Your task to perform on an android device: install app "Speedtest by Ookla" Image 0: 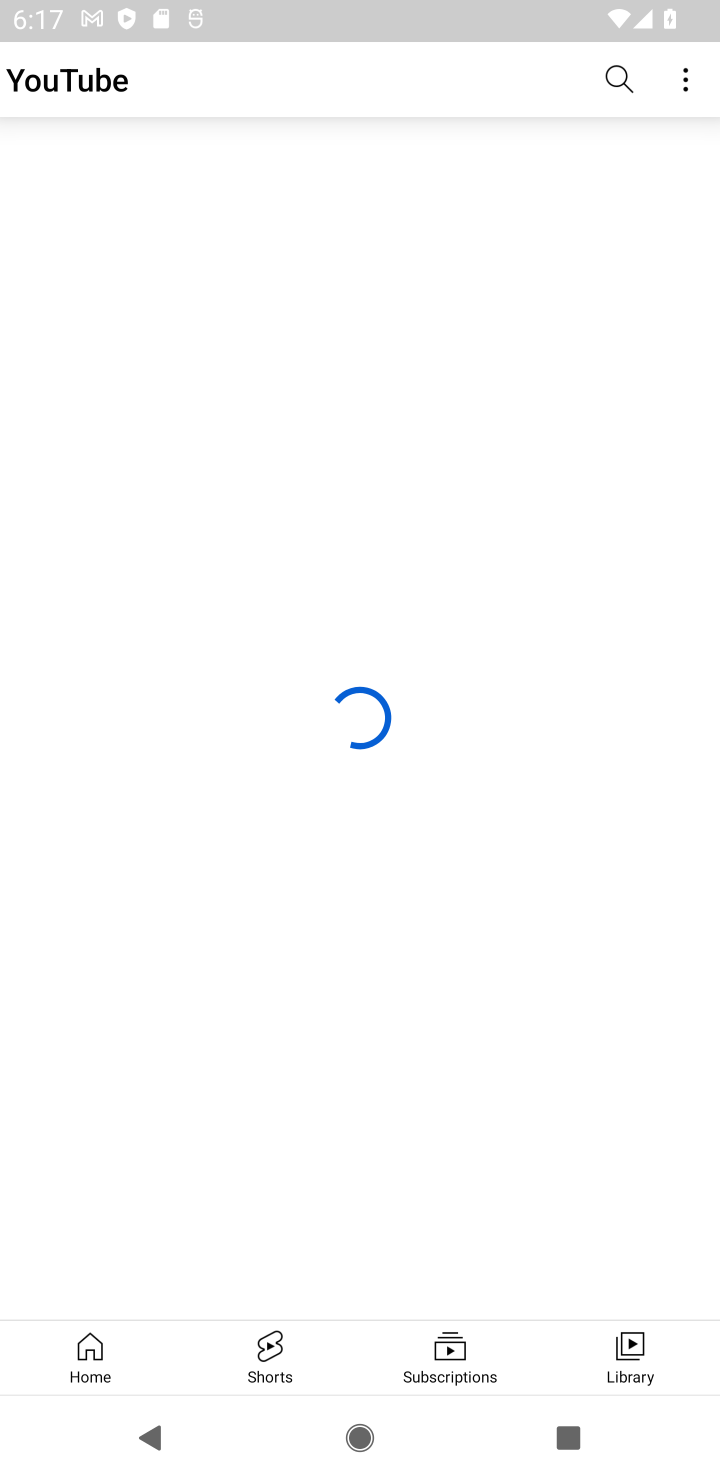
Step 0: press home button
Your task to perform on an android device: install app "Speedtest by Ookla" Image 1: 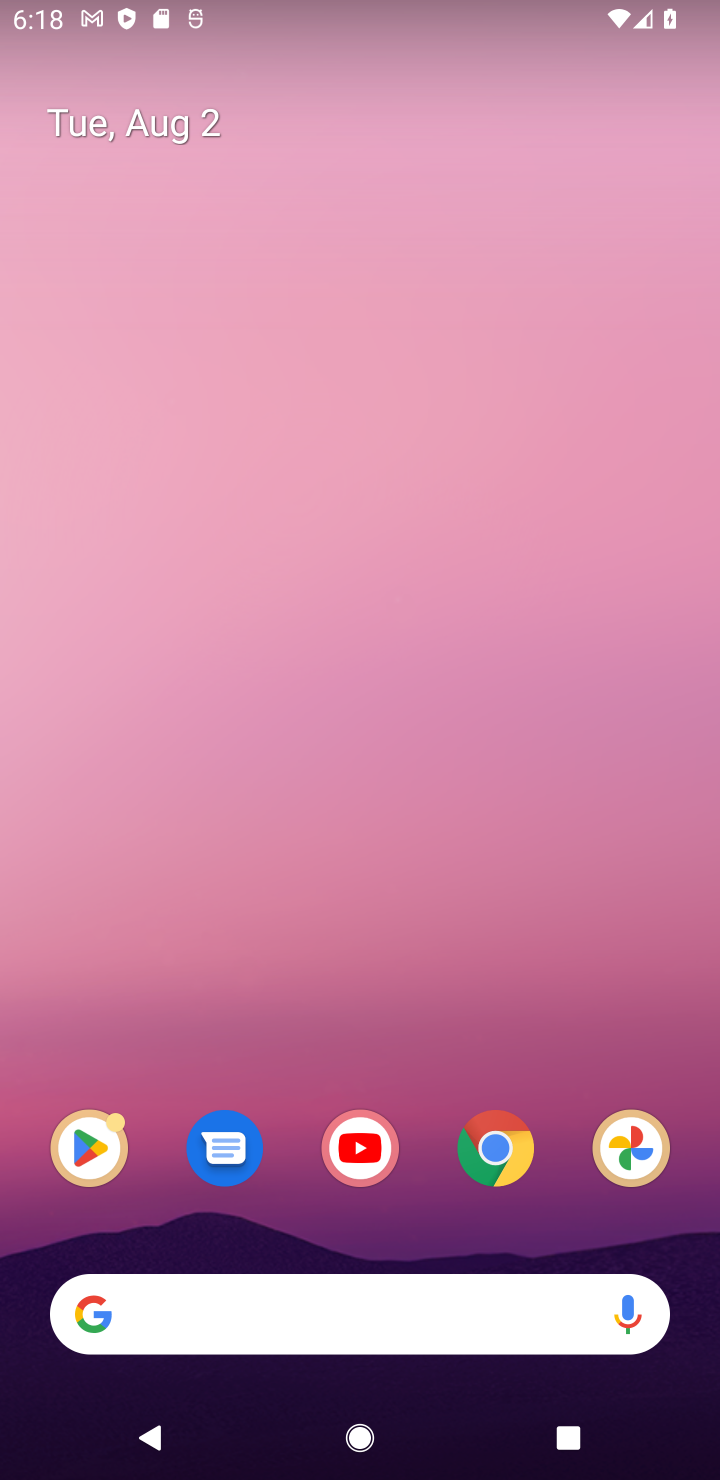
Step 1: drag from (437, 700) to (307, 48)
Your task to perform on an android device: install app "Speedtest by Ookla" Image 2: 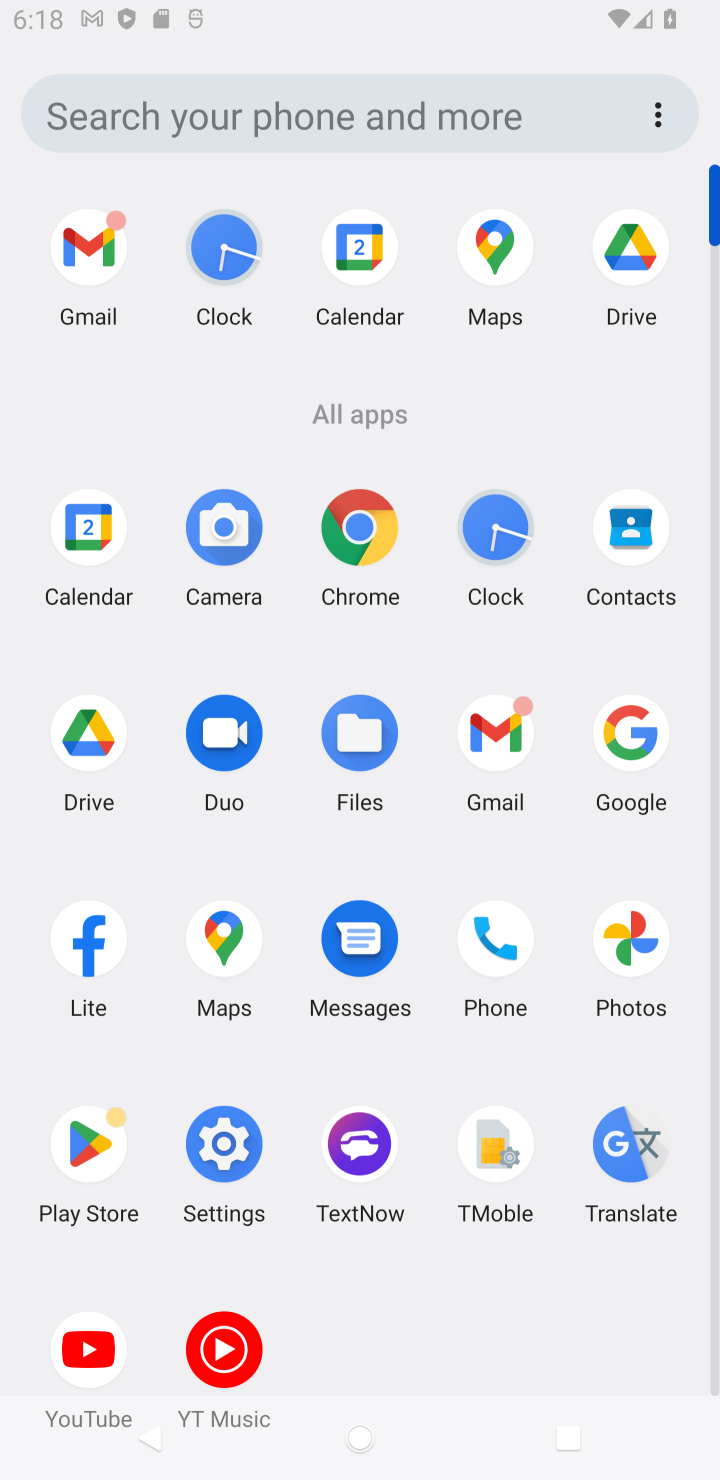
Step 2: click (80, 1141)
Your task to perform on an android device: install app "Speedtest by Ookla" Image 3: 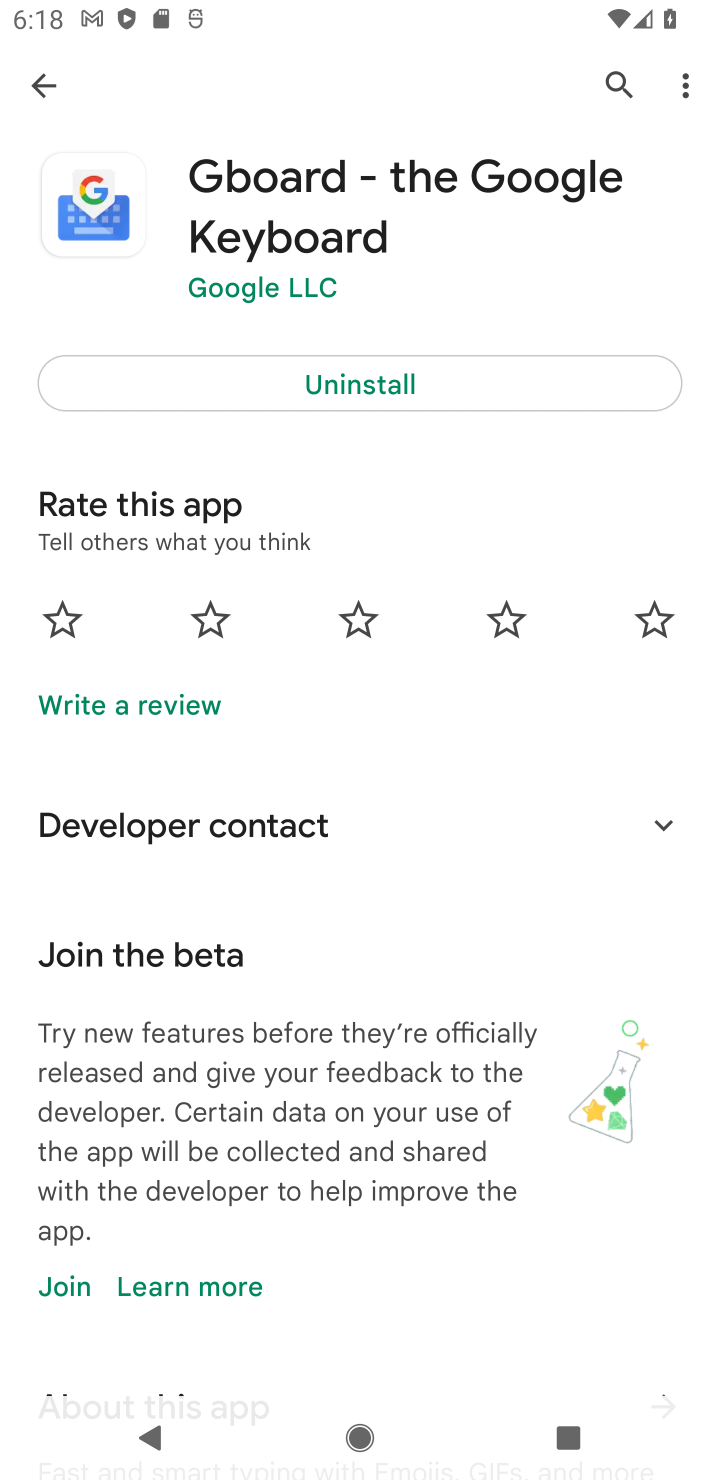
Step 3: press back button
Your task to perform on an android device: install app "Speedtest by Ookla" Image 4: 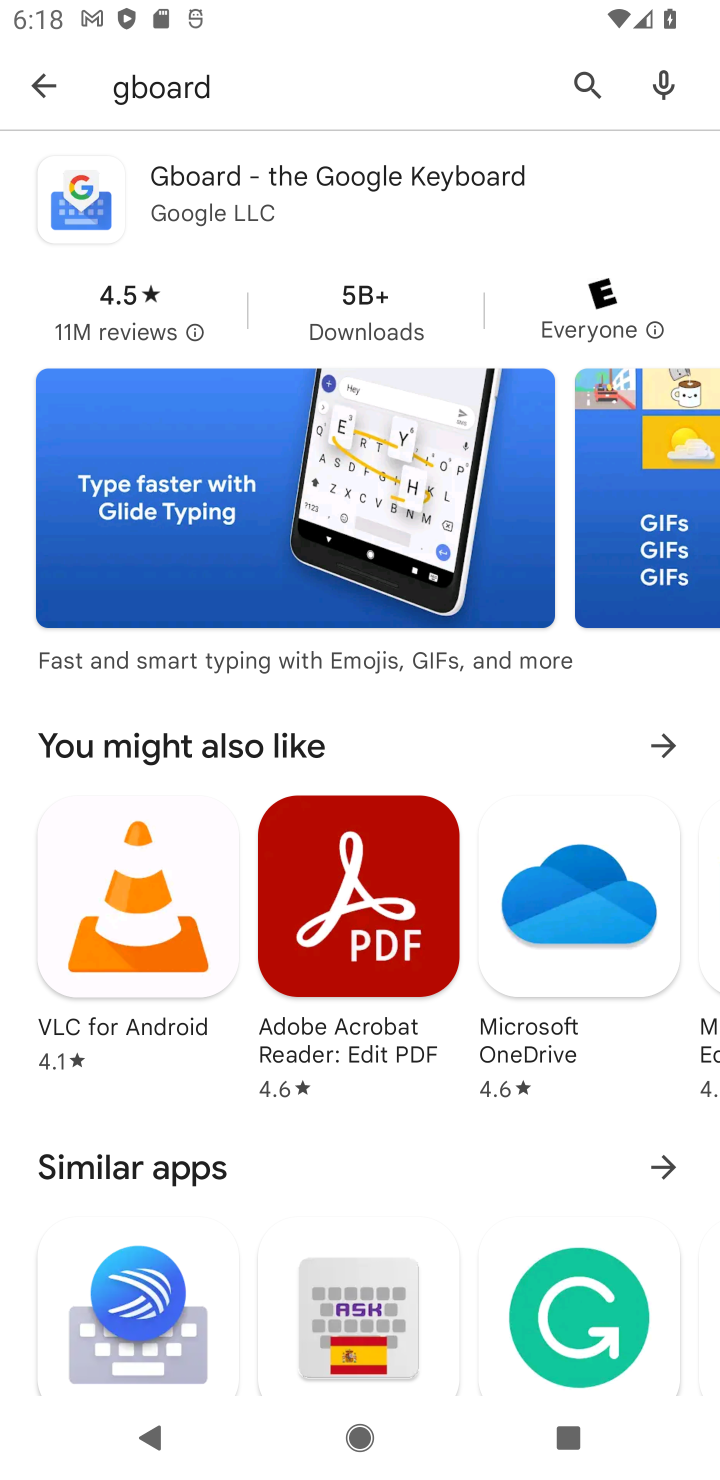
Step 4: press back button
Your task to perform on an android device: install app "Speedtest by Ookla" Image 5: 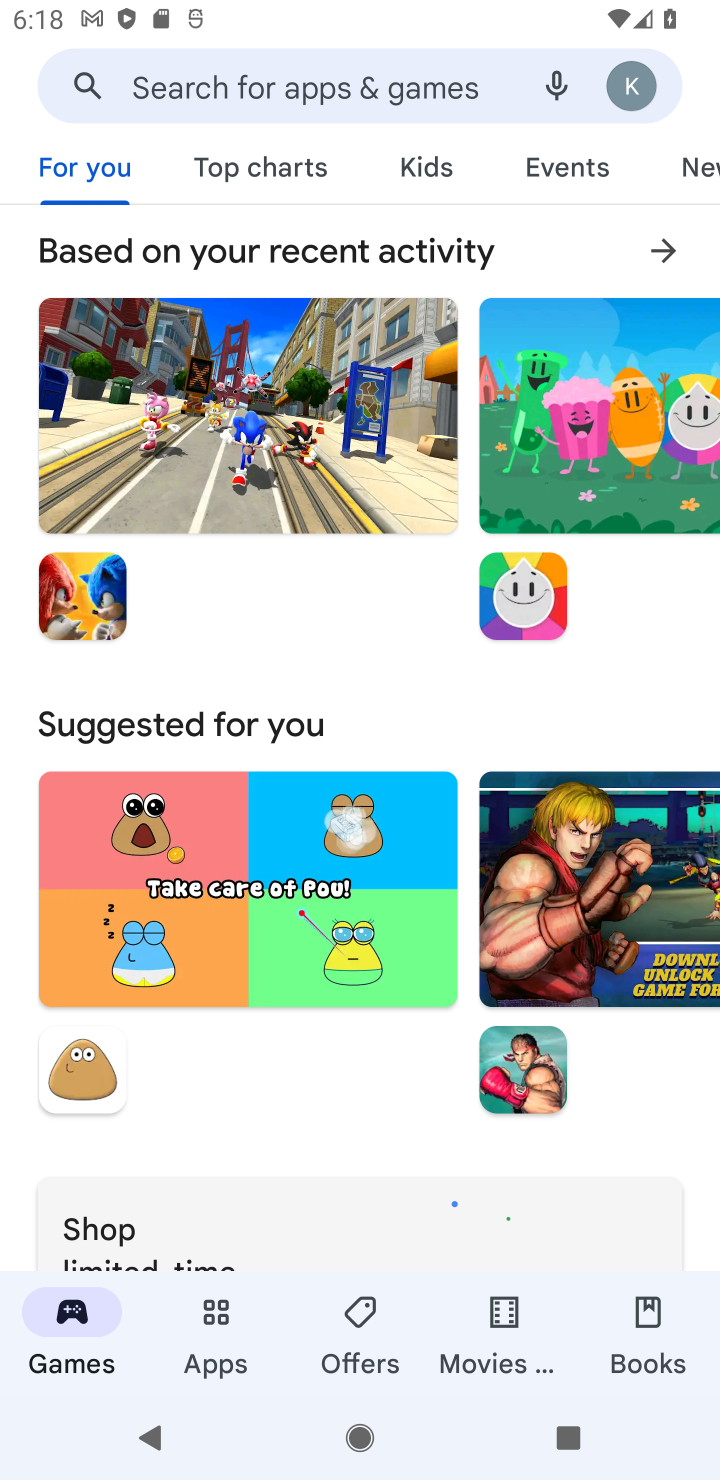
Step 5: click (186, 88)
Your task to perform on an android device: install app "Speedtest by Ookla" Image 6: 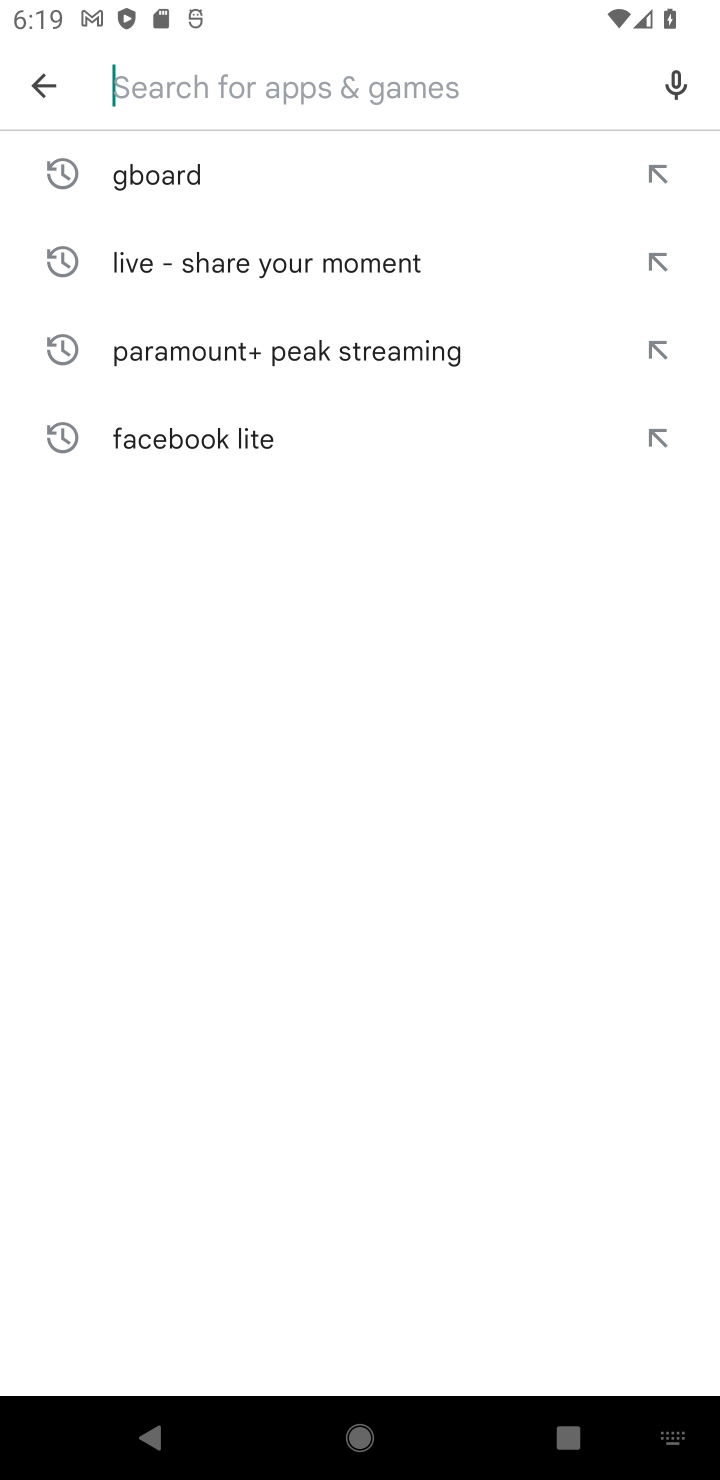
Step 6: type "Speedtest by Ookla"
Your task to perform on an android device: install app "Speedtest by Ookla" Image 7: 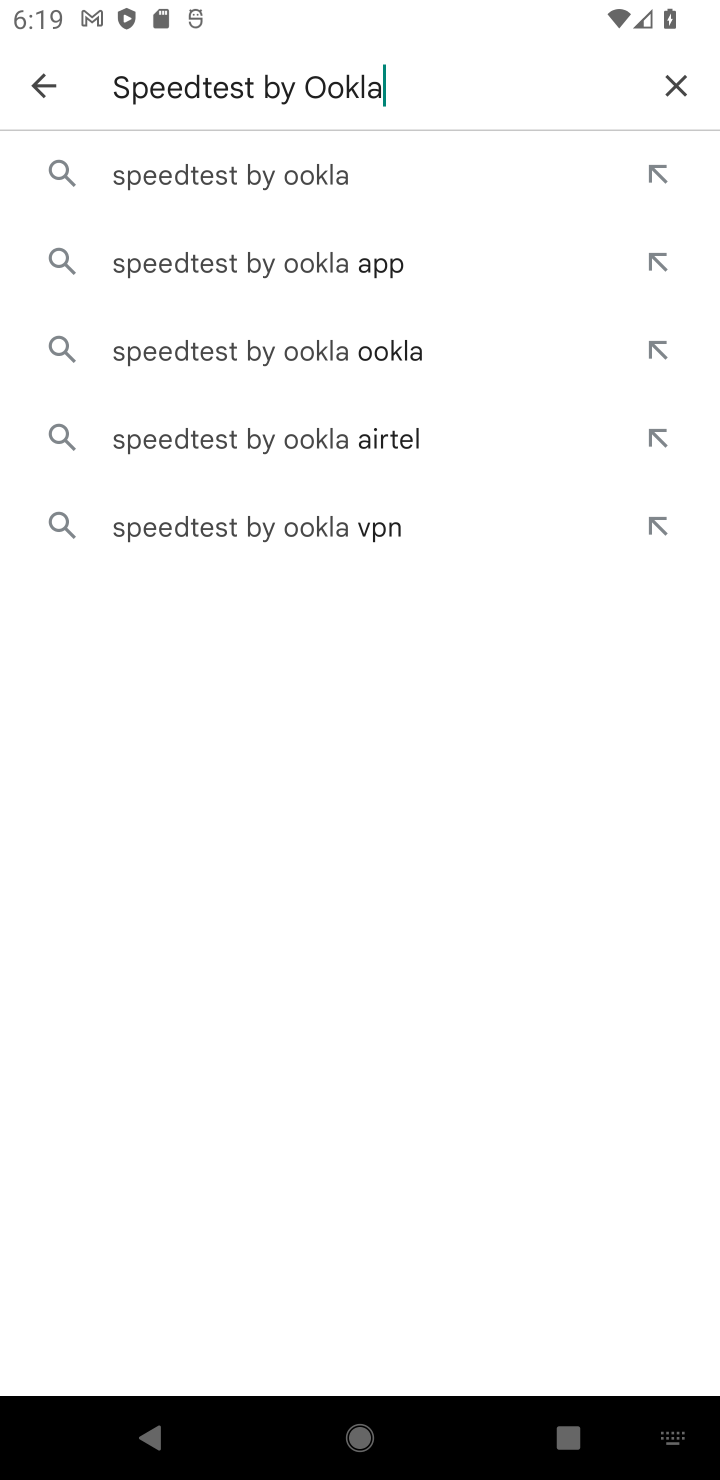
Step 7: click (138, 147)
Your task to perform on an android device: install app "Speedtest by Ookla" Image 8: 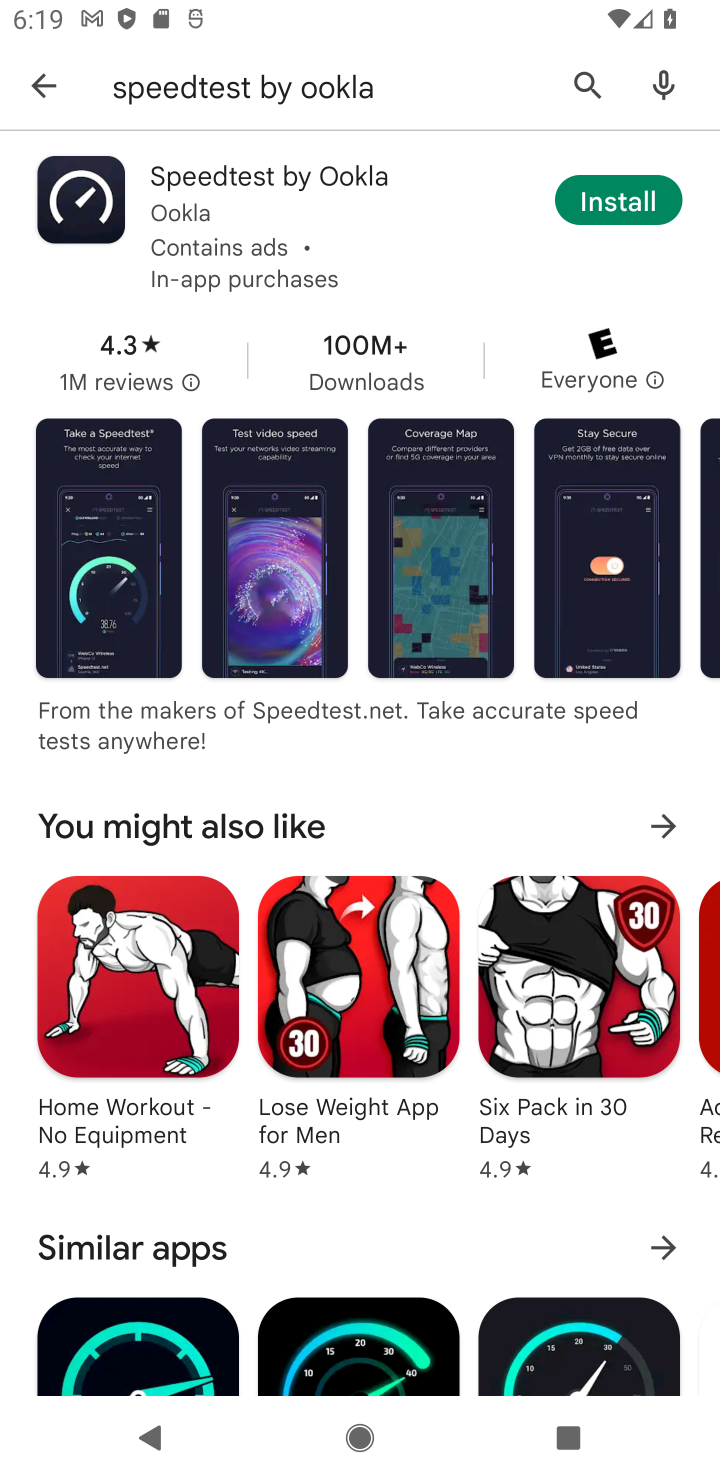
Step 8: click (598, 200)
Your task to perform on an android device: install app "Speedtest by Ookla" Image 9: 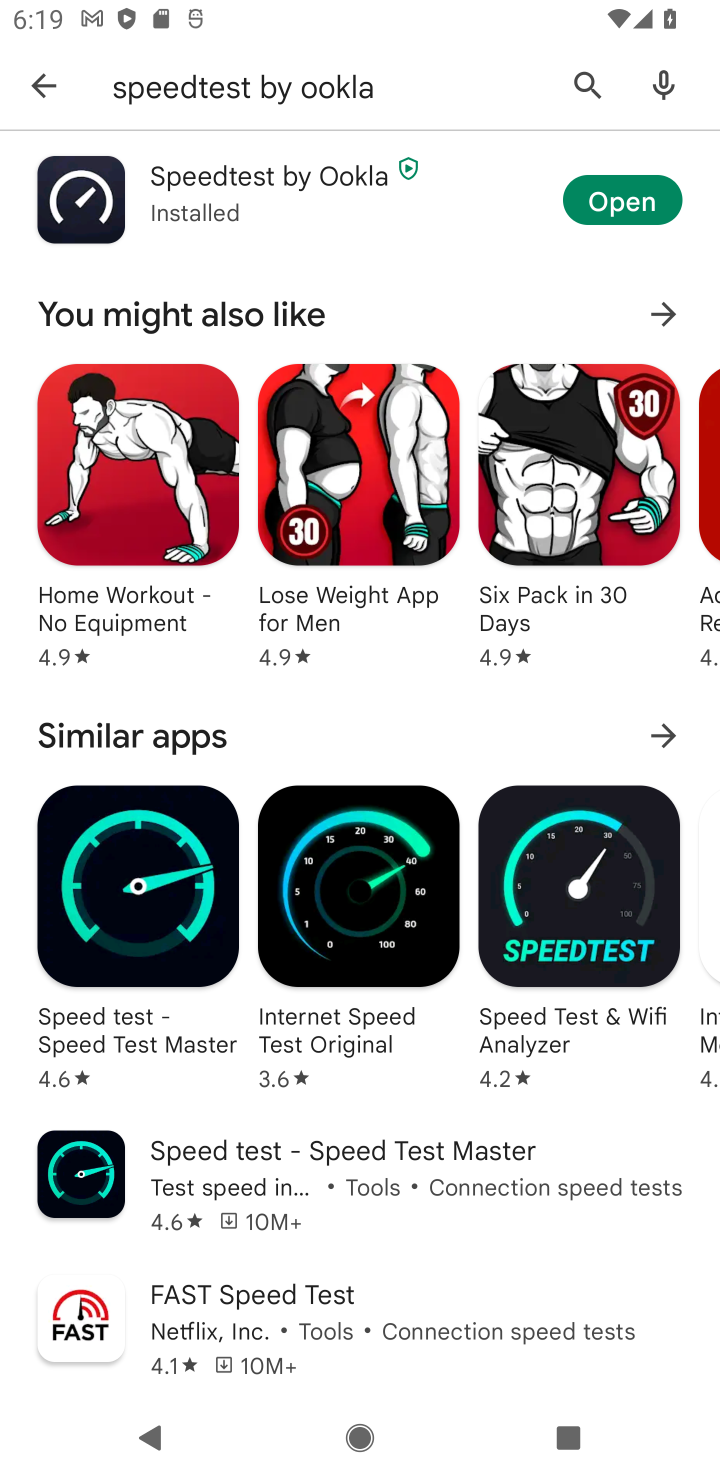
Step 9: task complete